Your task to perform on an android device: Open location settings Image 0: 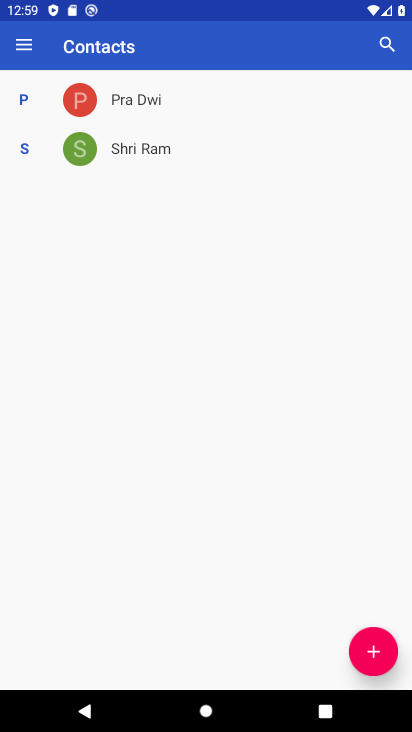
Step 0: click (263, 564)
Your task to perform on an android device: Open location settings Image 1: 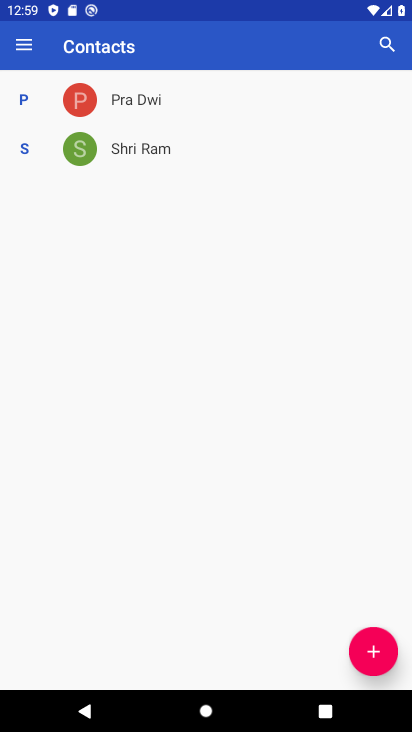
Step 1: press home button
Your task to perform on an android device: Open location settings Image 2: 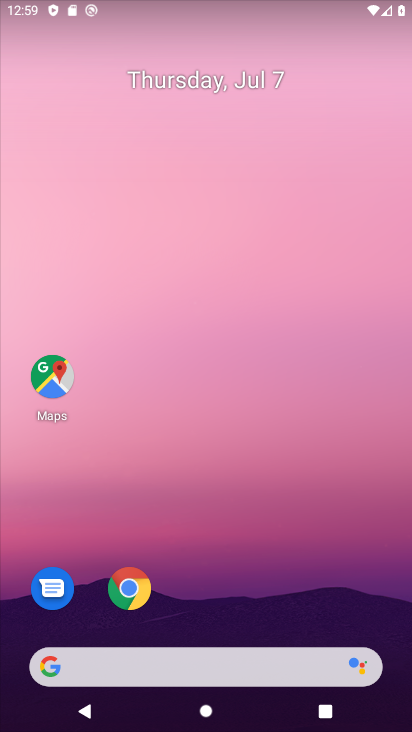
Step 2: drag from (194, 588) to (244, 264)
Your task to perform on an android device: Open location settings Image 3: 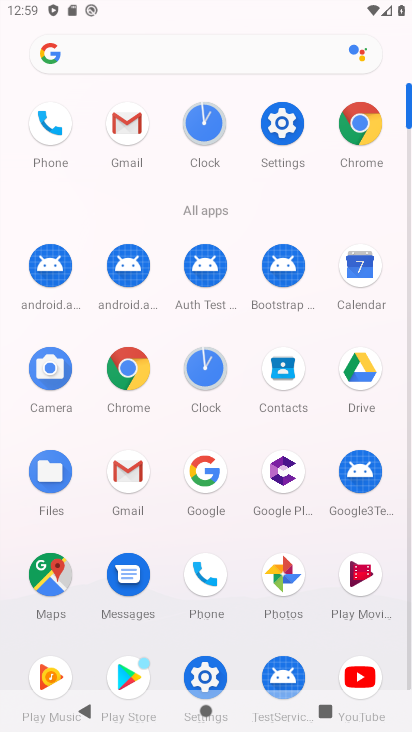
Step 3: click (277, 121)
Your task to perform on an android device: Open location settings Image 4: 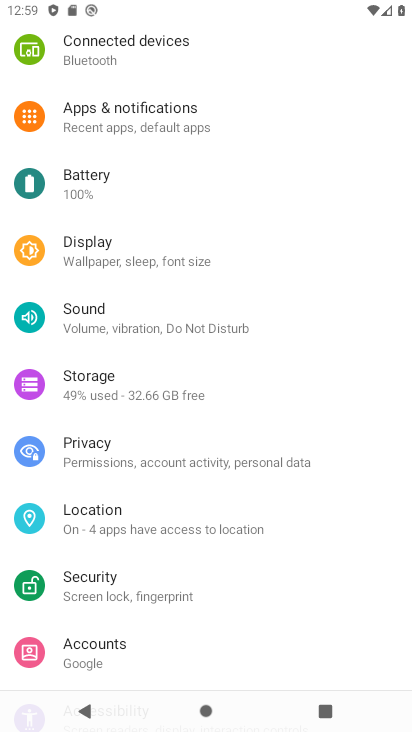
Step 4: click (111, 516)
Your task to perform on an android device: Open location settings Image 5: 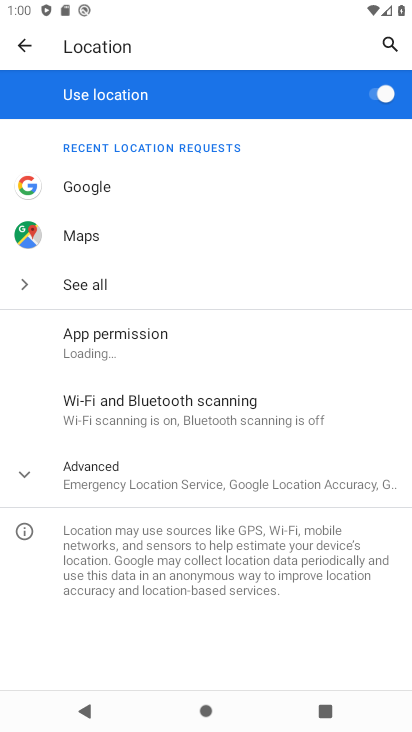
Step 5: task complete